Your task to perform on an android device: Add razer huntsman to the cart on walmart, then select checkout. Image 0: 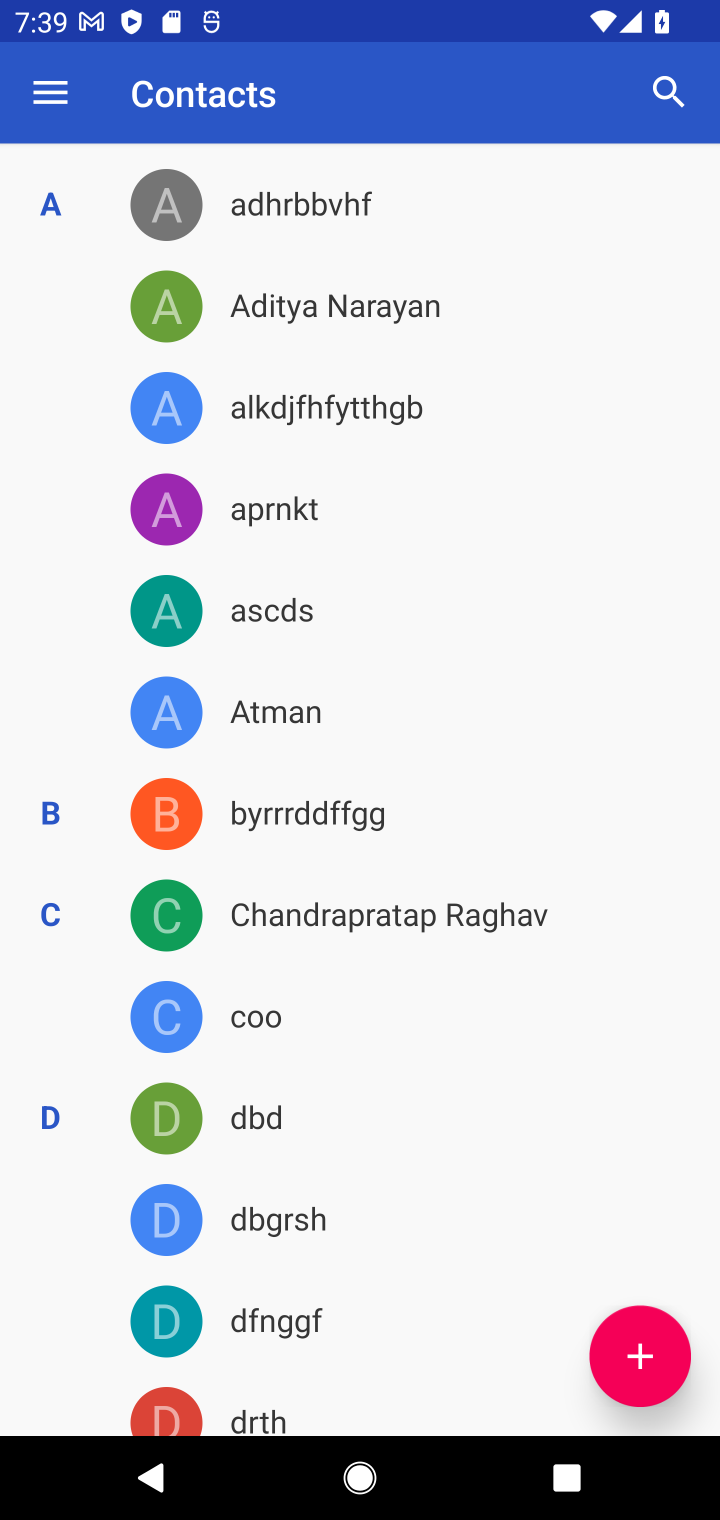
Step 0: press home button
Your task to perform on an android device: Add razer huntsman to the cart on walmart, then select checkout. Image 1: 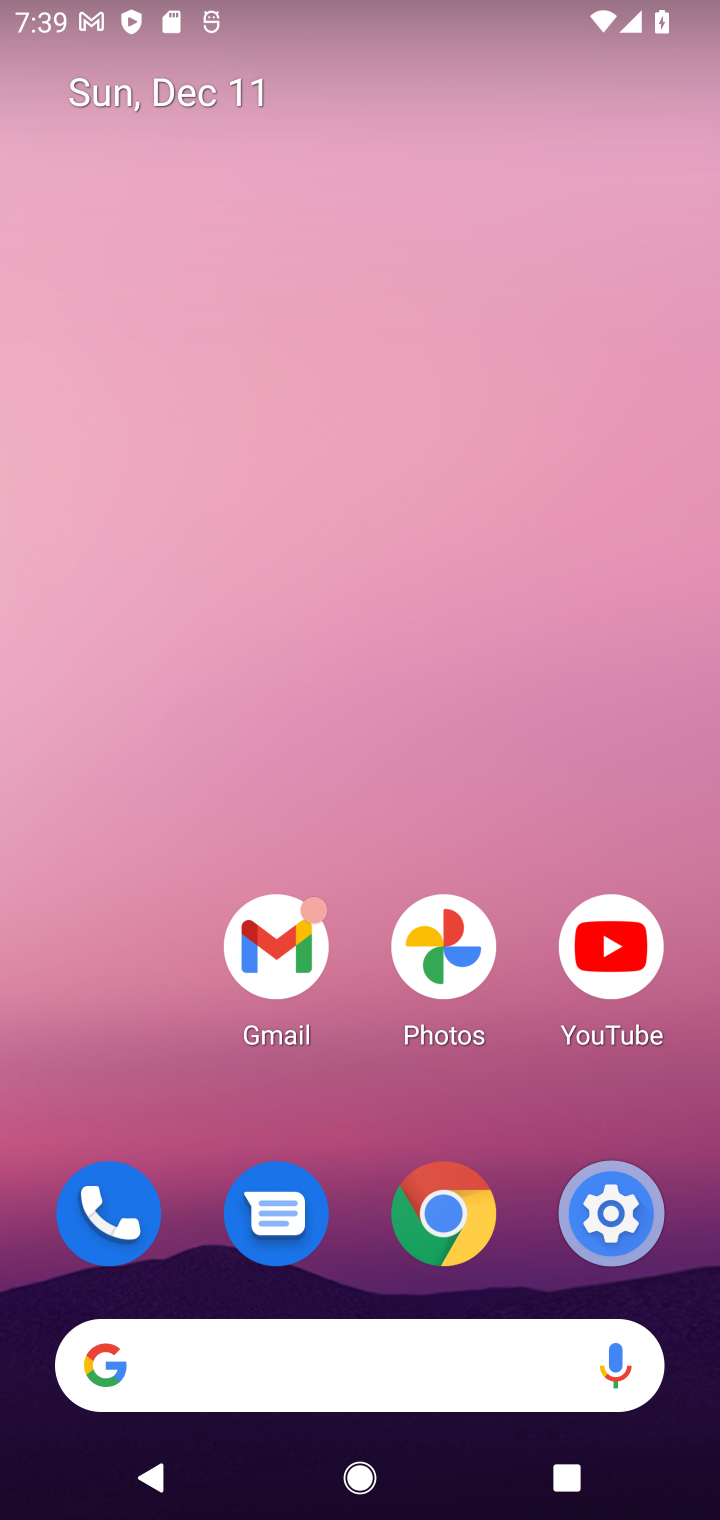
Step 1: click (382, 1384)
Your task to perform on an android device: Add razer huntsman to the cart on walmart, then select checkout. Image 2: 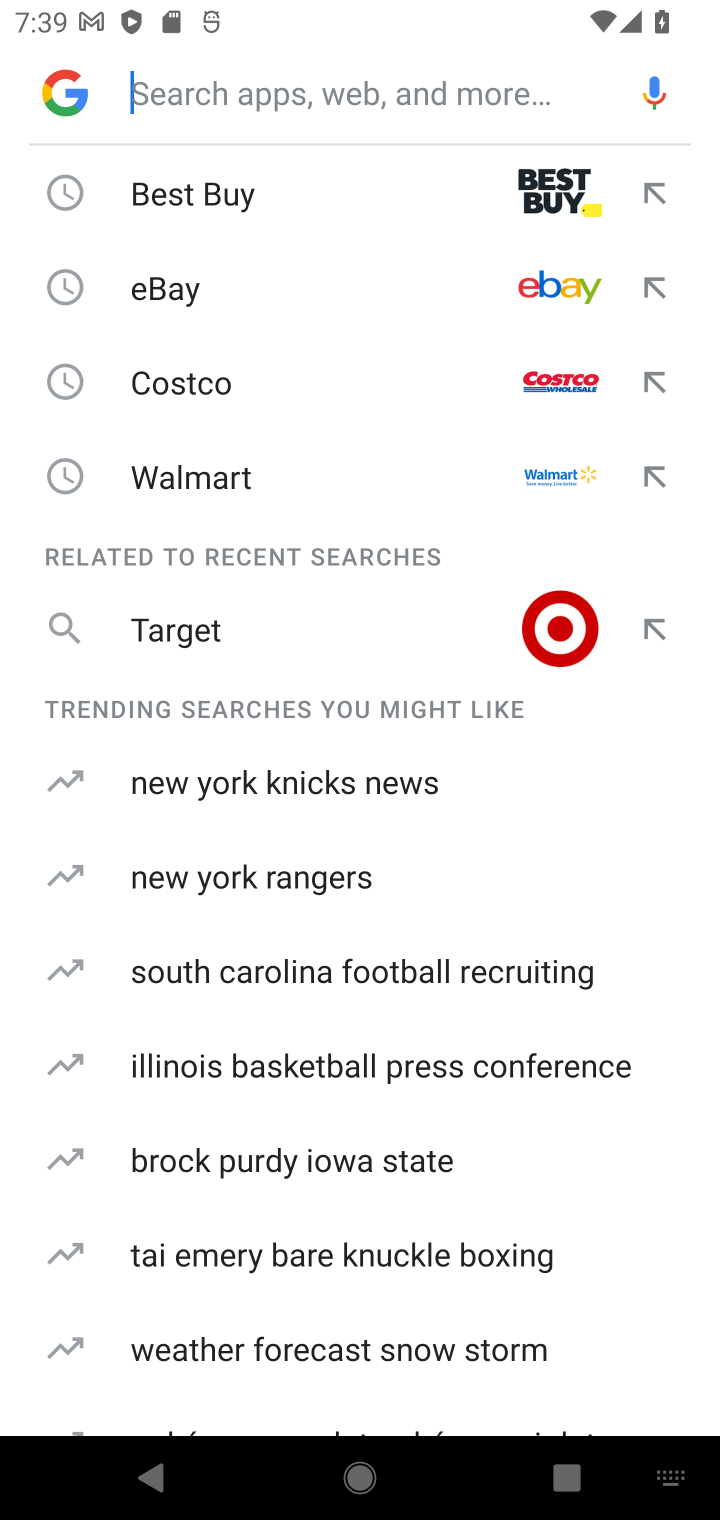
Step 2: type "walmart"
Your task to perform on an android device: Add razer huntsman to the cart on walmart, then select checkout. Image 3: 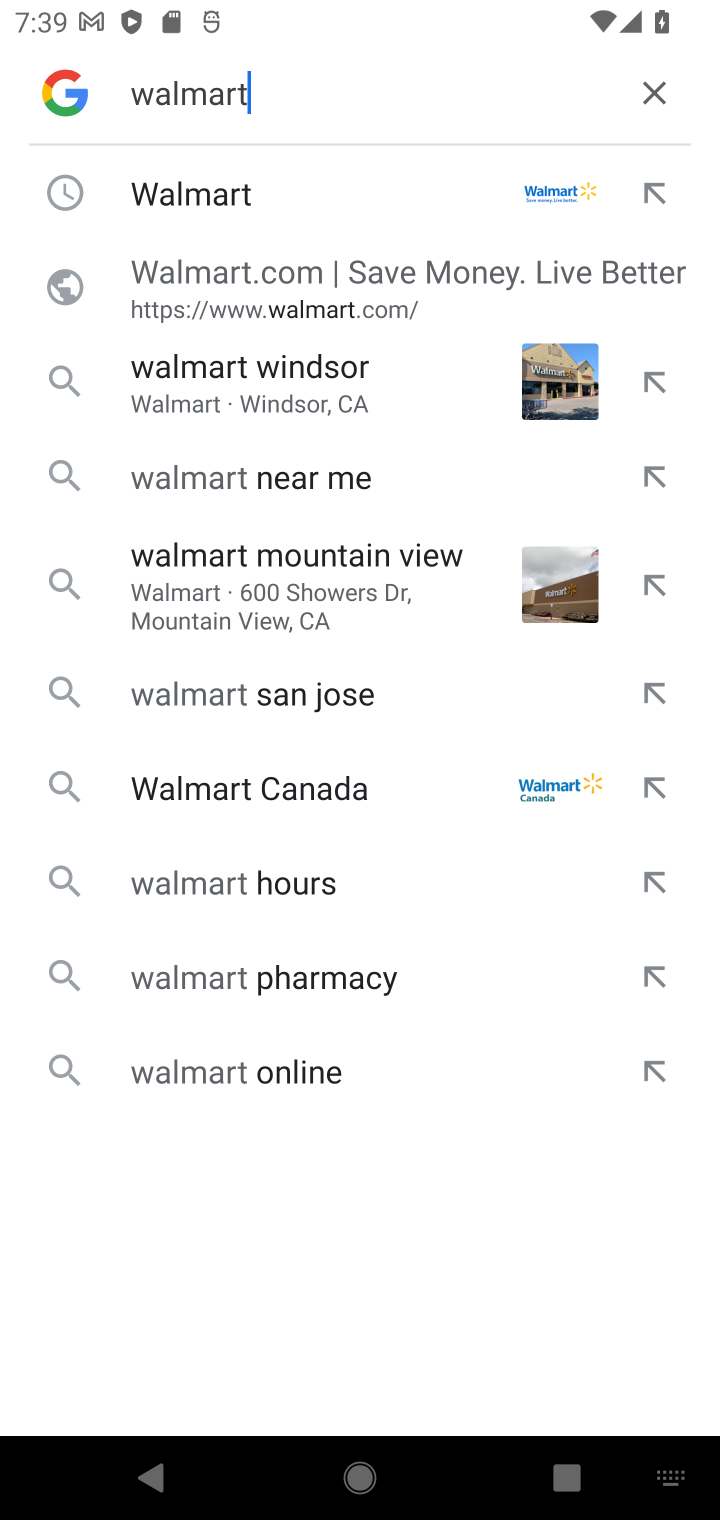
Step 3: click (249, 207)
Your task to perform on an android device: Add razer huntsman to the cart on walmart, then select checkout. Image 4: 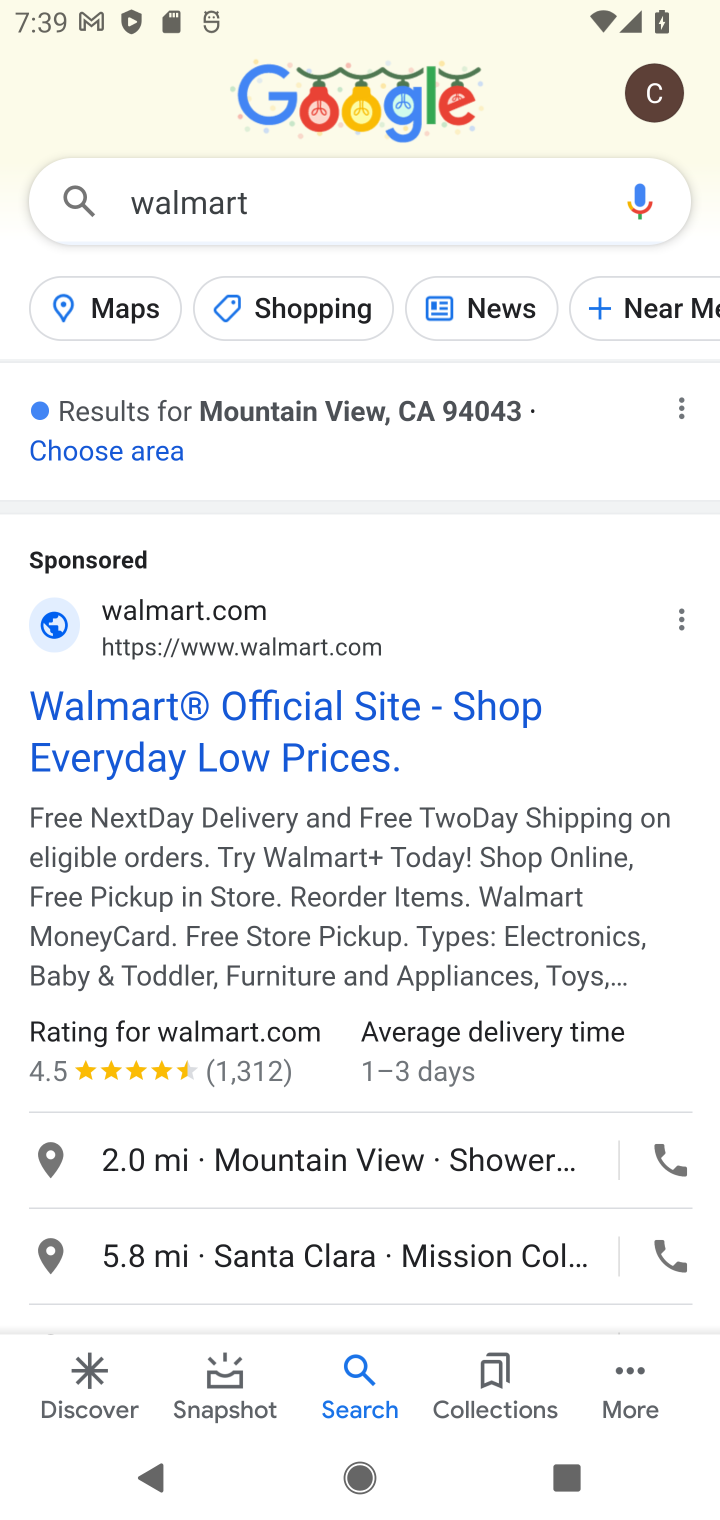
Step 4: click (340, 740)
Your task to perform on an android device: Add razer huntsman to the cart on walmart, then select checkout. Image 5: 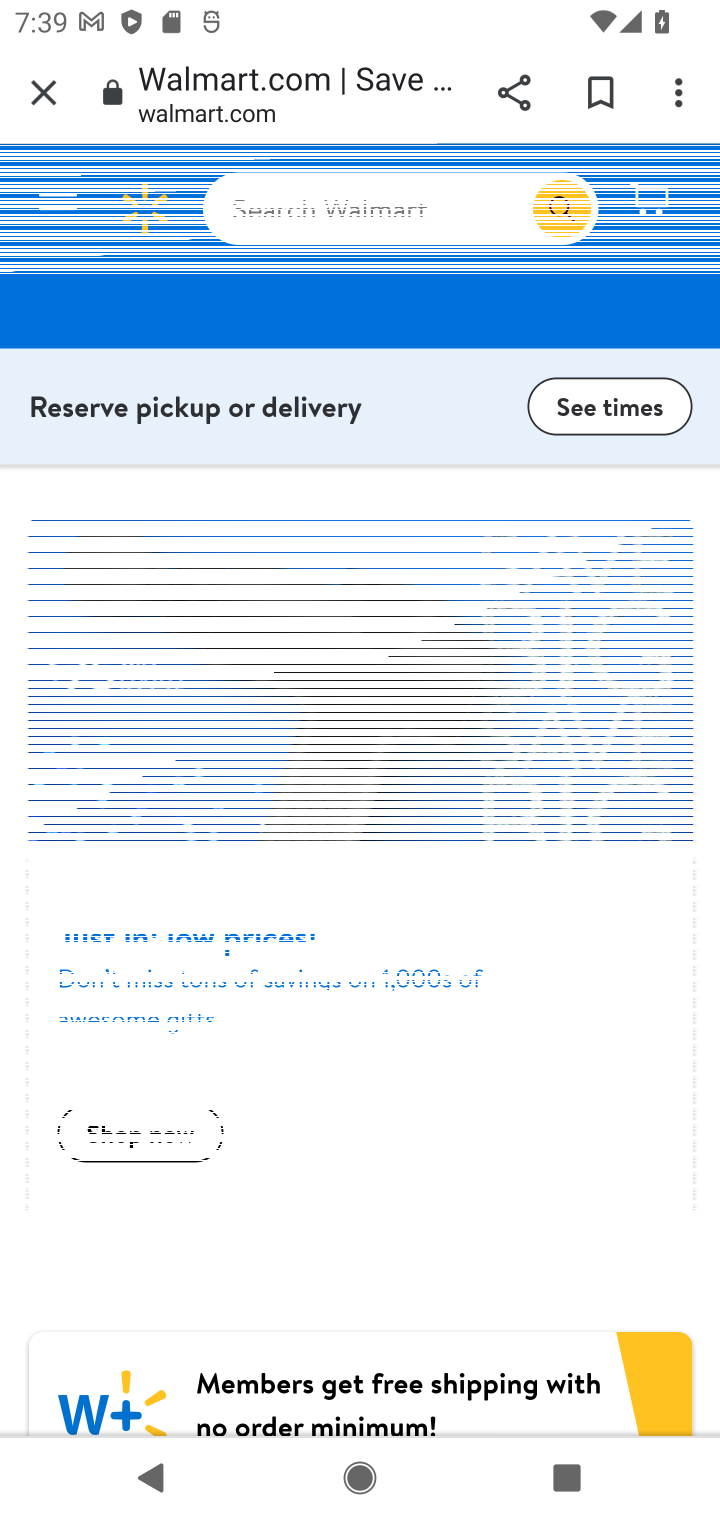
Step 5: click (341, 219)
Your task to perform on an android device: Add razer huntsman to the cart on walmart, then select checkout. Image 6: 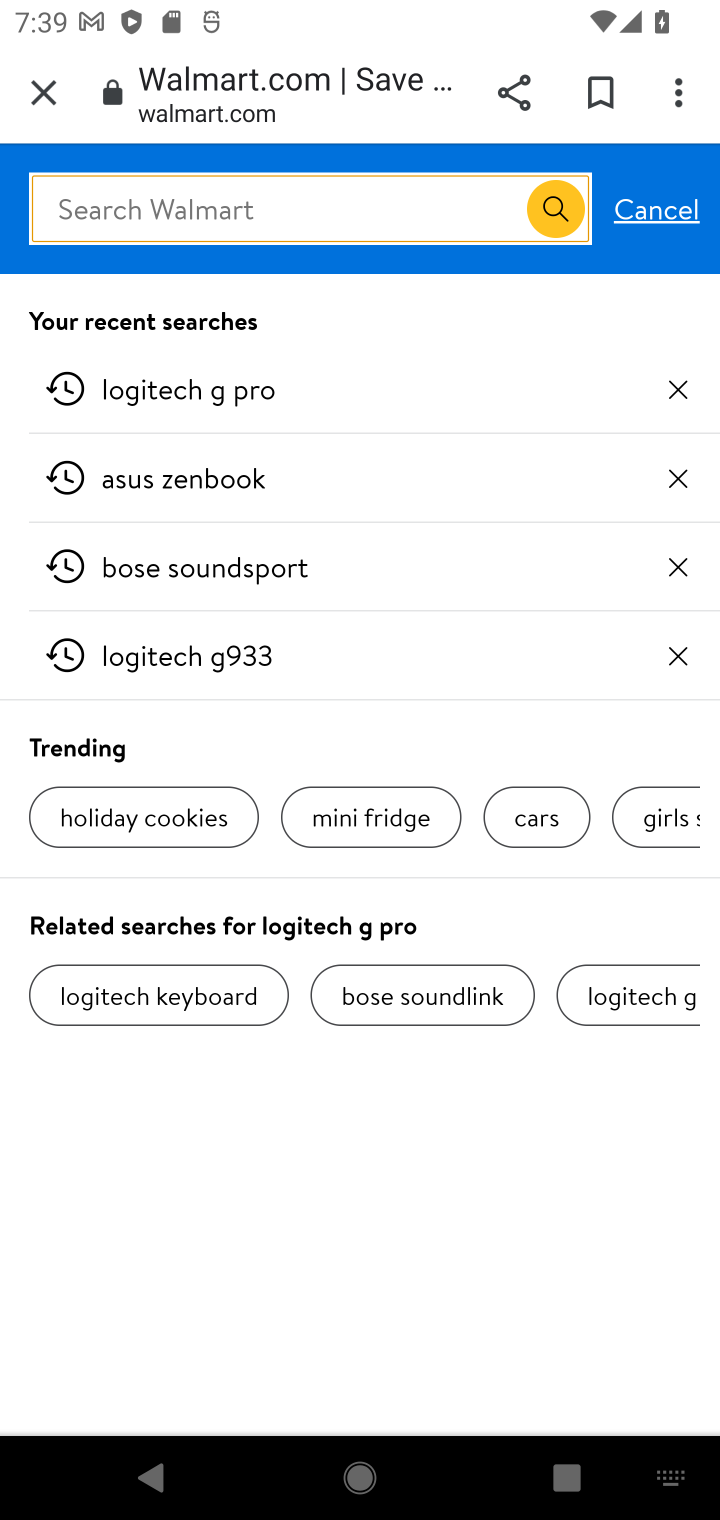
Step 6: type "razer huntsman"
Your task to perform on an android device: Add razer huntsman to the cart on walmart, then select checkout. Image 7: 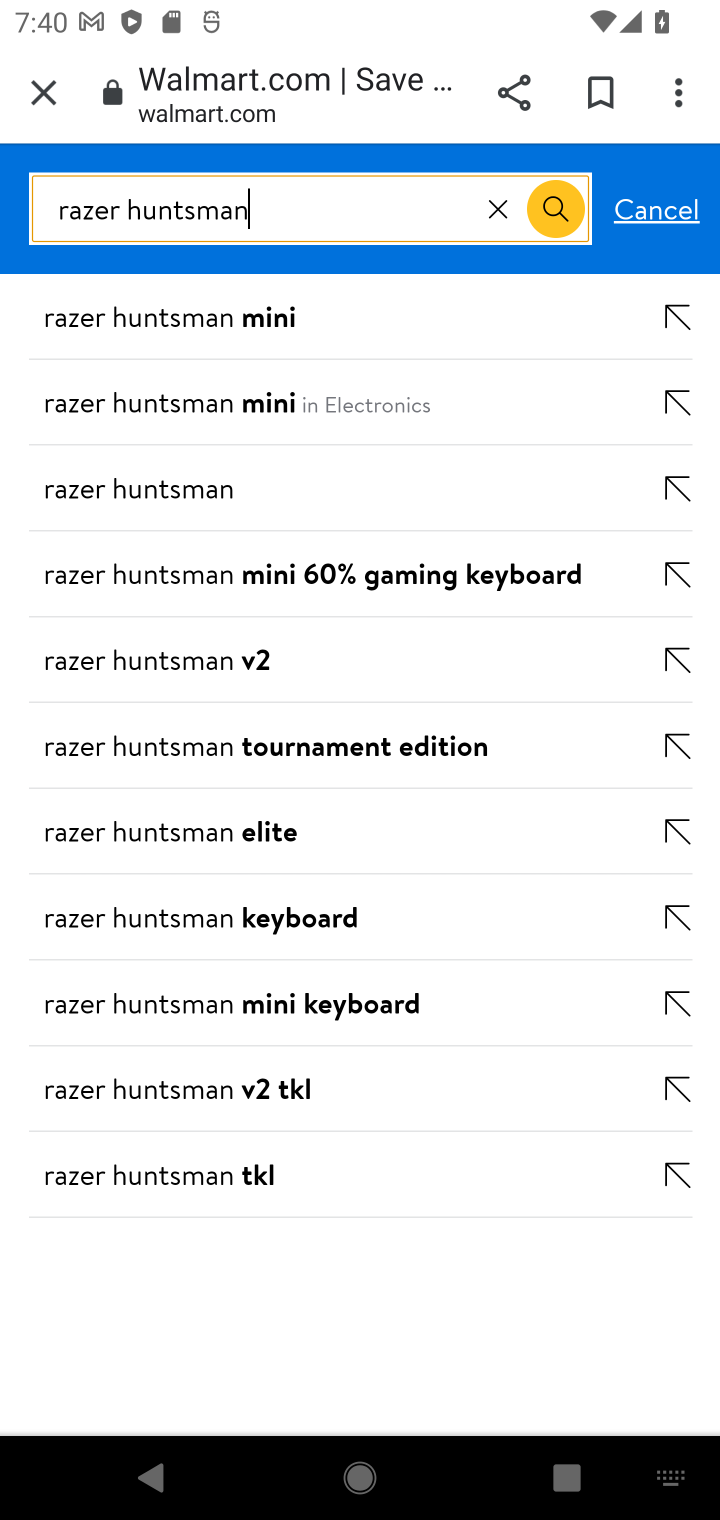
Step 7: click (210, 499)
Your task to perform on an android device: Add razer huntsman to the cart on walmart, then select checkout. Image 8: 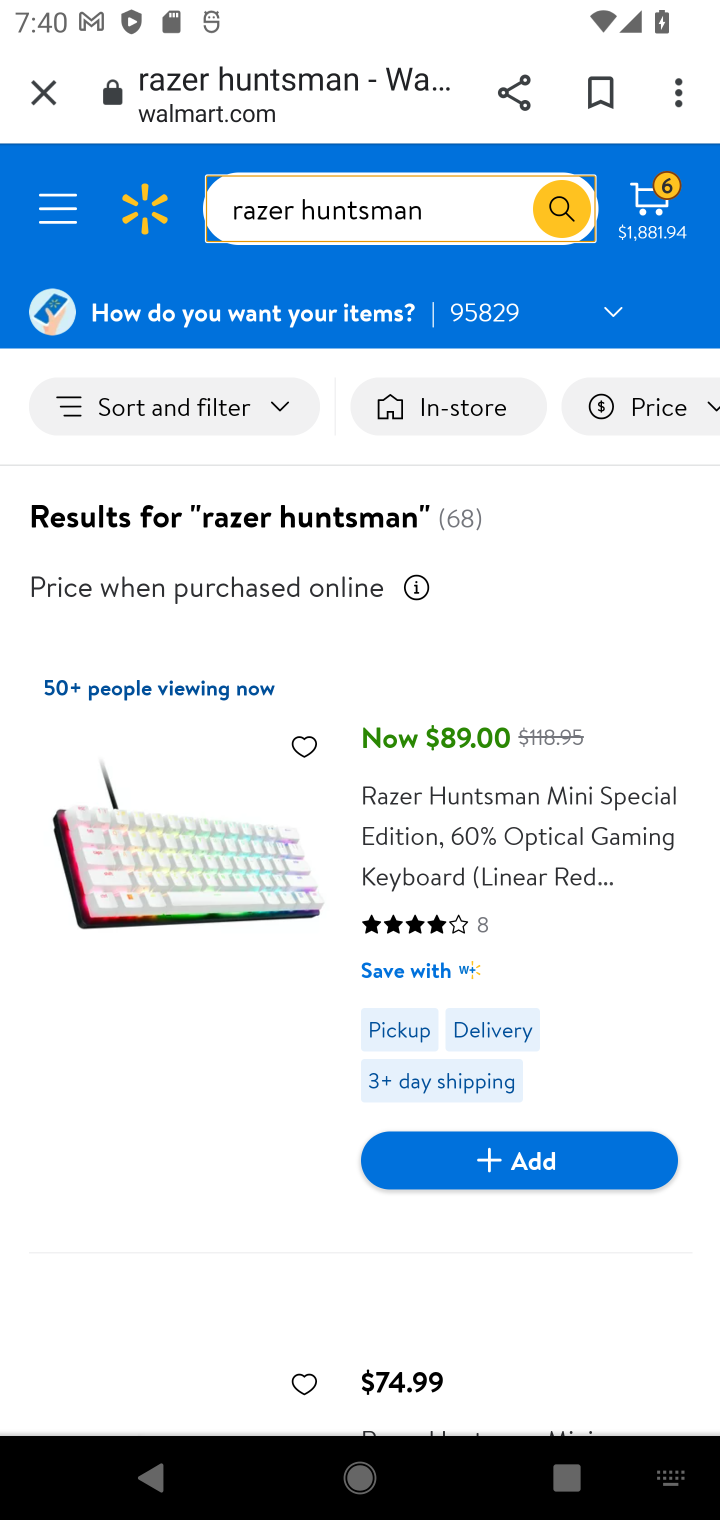
Step 8: click (585, 1169)
Your task to perform on an android device: Add razer huntsman to the cart on walmart, then select checkout. Image 9: 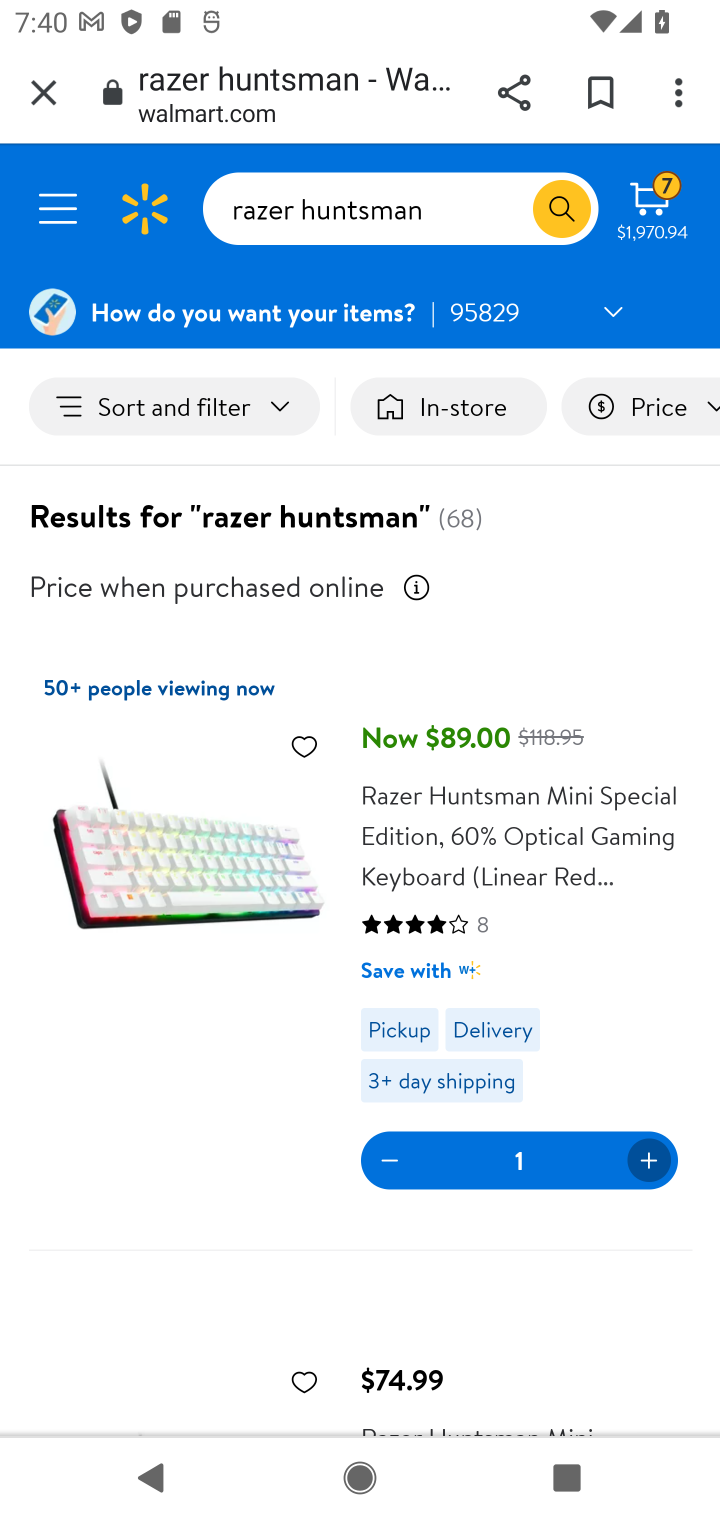
Step 9: task complete